Your task to perform on an android device: Open maps Image 0: 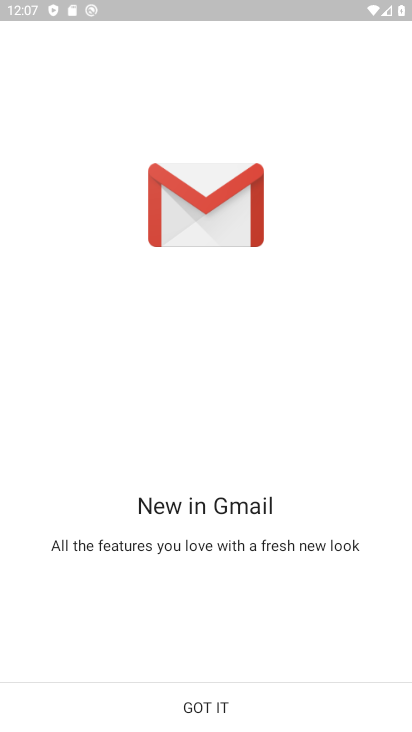
Step 0: press home button
Your task to perform on an android device: Open maps Image 1: 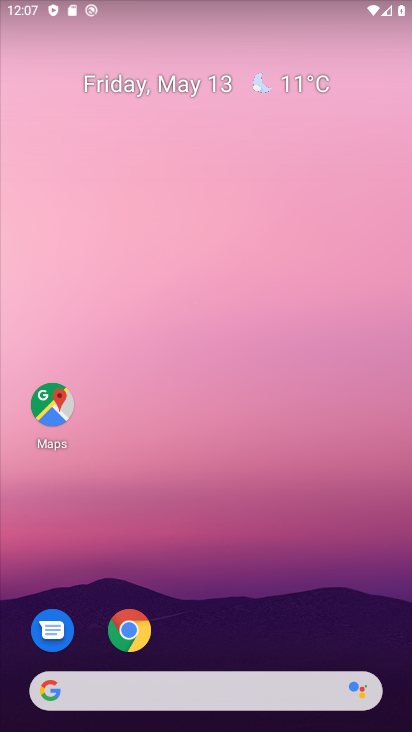
Step 1: click (48, 397)
Your task to perform on an android device: Open maps Image 2: 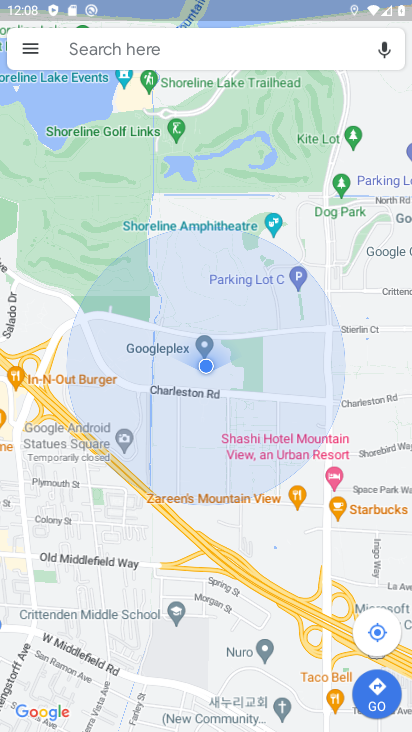
Step 2: task complete